Your task to perform on an android device: toggle airplane mode Image 0: 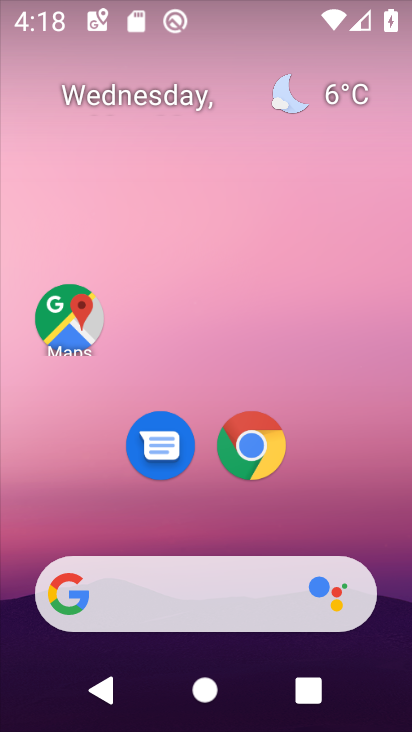
Step 0: drag from (218, 550) to (239, 88)
Your task to perform on an android device: toggle airplane mode Image 1: 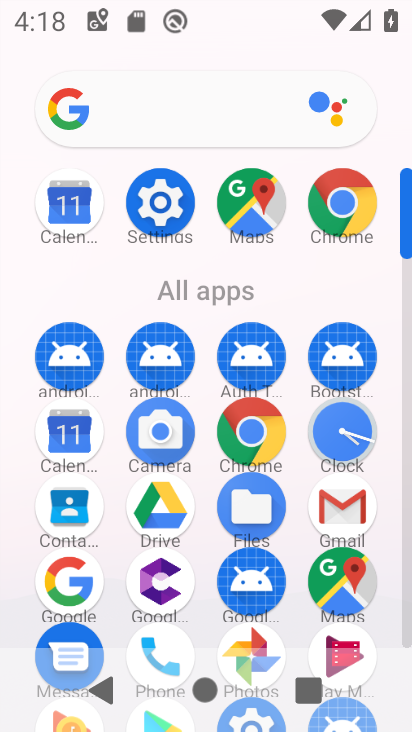
Step 1: click (159, 228)
Your task to perform on an android device: toggle airplane mode Image 2: 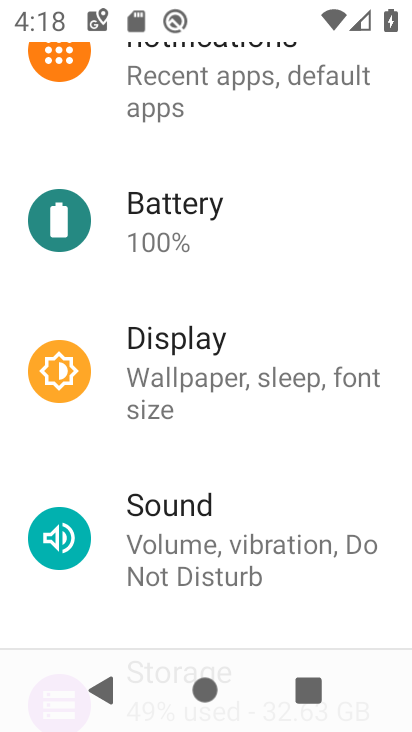
Step 2: drag from (196, 269) to (209, 672)
Your task to perform on an android device: toggle airplane mode Image 3: 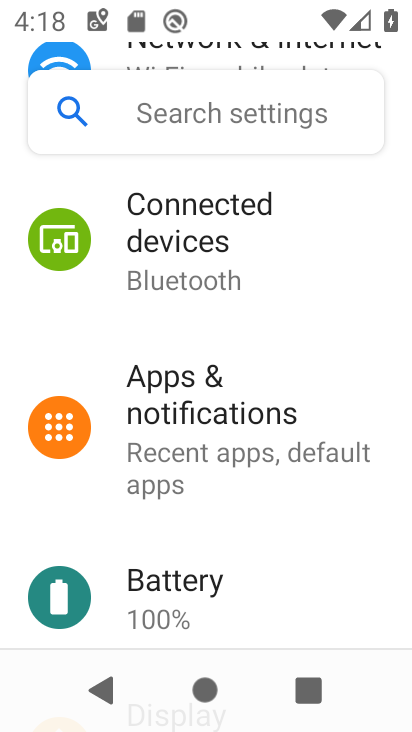
Step 3: drag from (230, 283) to (232, 671)
Your task to perform on an android device: toggle airplane mode Image 4: 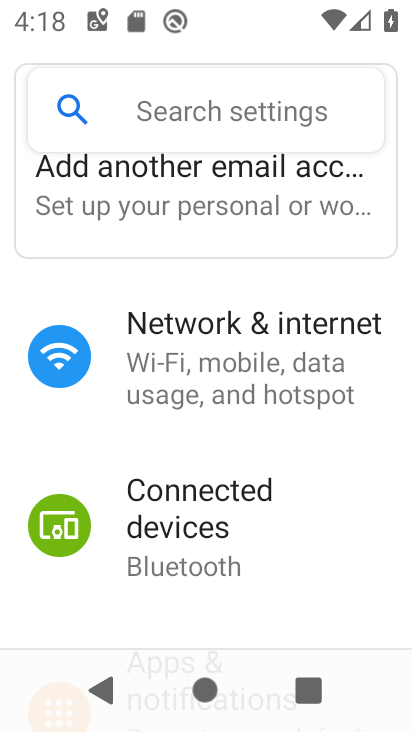
Step 4: click (254, 379)
Your task to perform on an android device: toggle airplane mode Image 5: 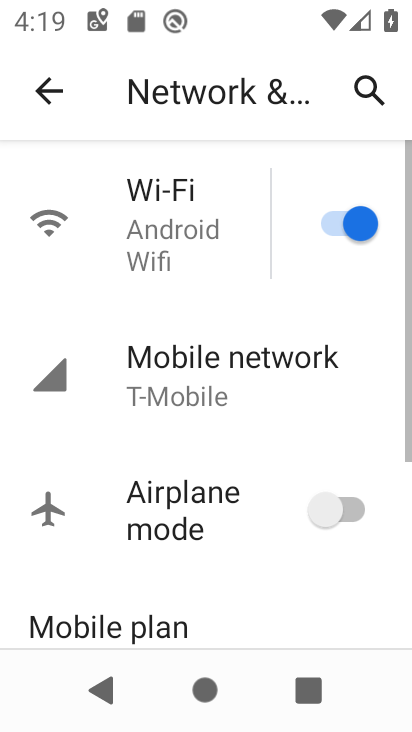
Step 5: click (311, 501)
Your task to perform on an android device: toggle airplane mode Image 6: 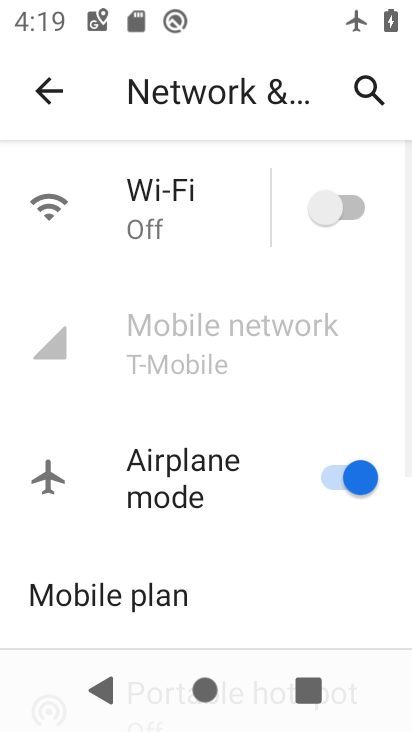
Step 6: task complete